Your task to perform on an android device: turn on bluetooth scan Image 0: 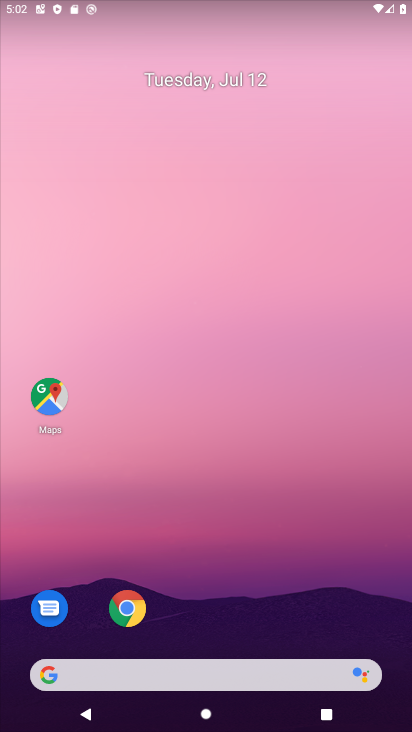
Step 0: drag from (226, 11) to (205, 575)
Your task to perform on an android device: turn on bluetooth scan Image 1: 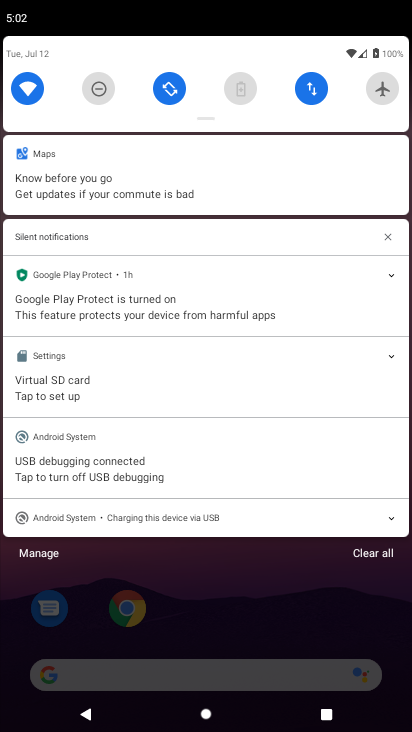
Step 1: drag from (205, 43) to (243, 451)
Your task to perform on an android device: turn on bluetooth scan Image 2: 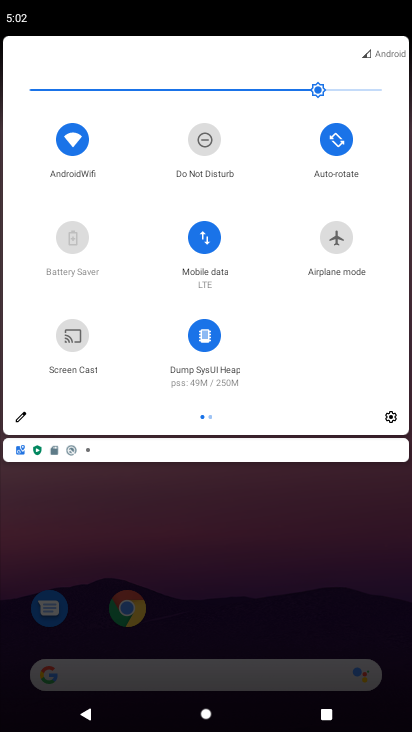
Step 2: click (386, 409)
Your task to perform on an android device: turn on bluetooth scan Image 3: 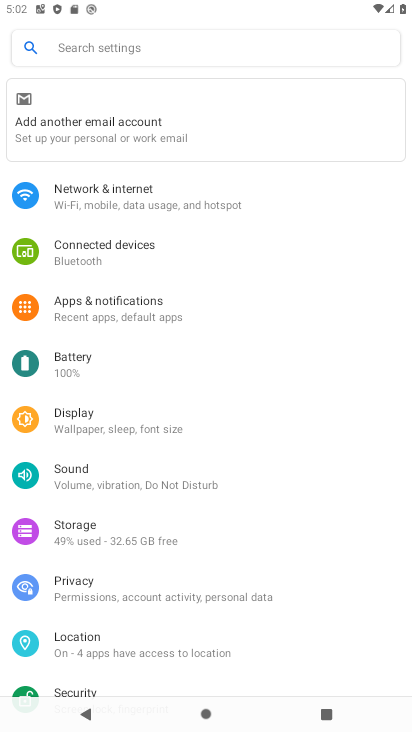
Step 3: click (114, 643)
Your task to perform on an android device: turn on bluetooth scan Image 4: 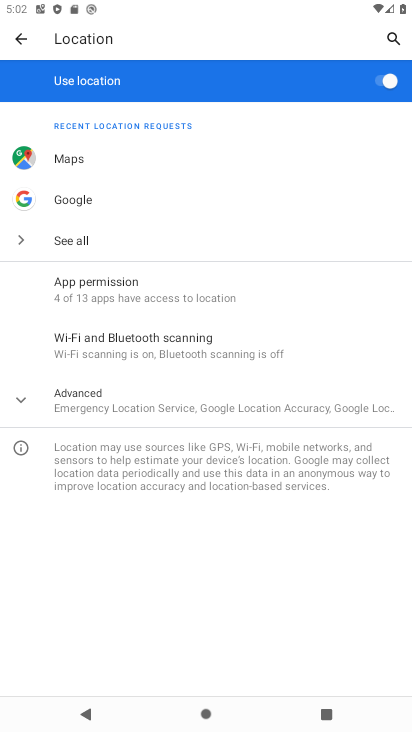
Step 4: click (159, 414)
Your task to perform on an android device: turn on bluetooth scan Image 5: 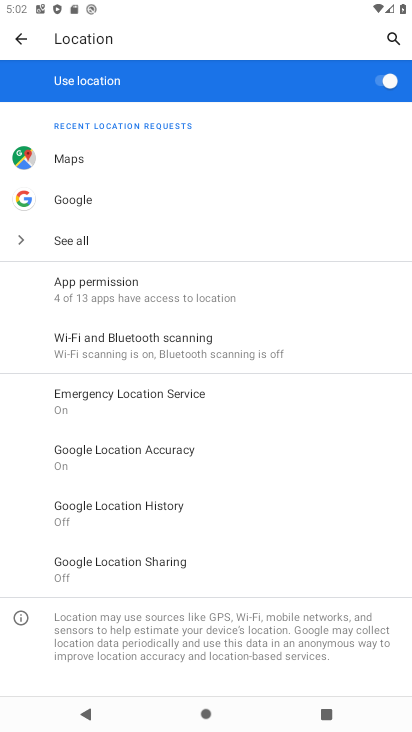
Step 5: click (156, 357)
Your task to perform on an android device: turn on bluetooth scan Image 6: 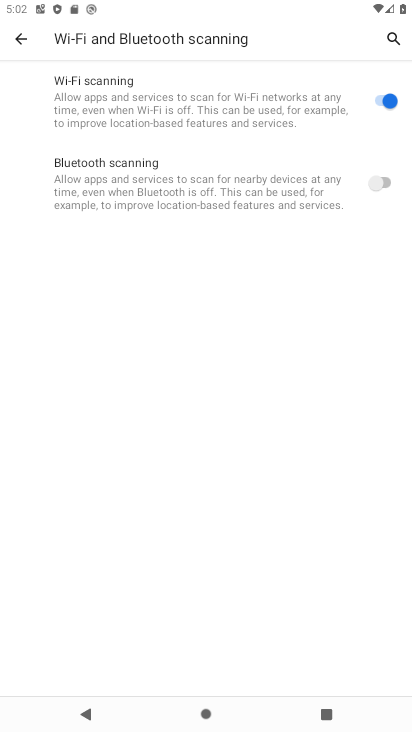
Step 6: click (379, 185)
Your task to perform on an android device: turn on bluetooth scan Image 7: 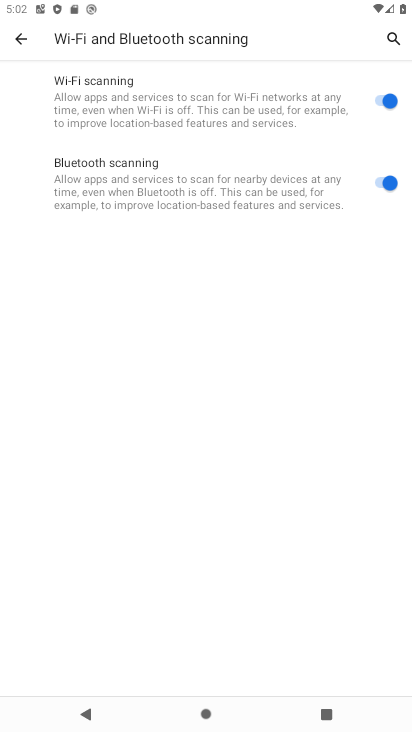
Step 7: task complete